Your task to perform on an android device: Search for vegetarian restaurants on Maps Image 0: 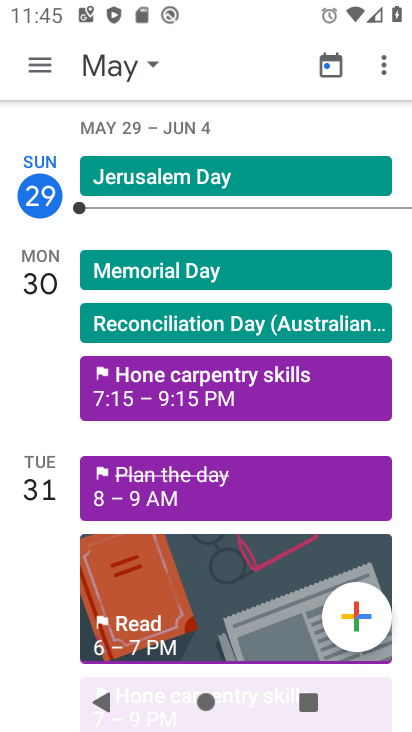
Step 0: press home button
Your task to perform on an android device: Search for vegetarian restaurants on Maps Image 1: 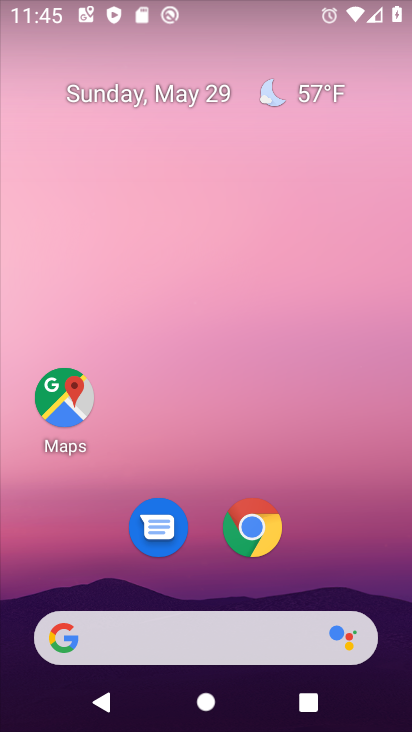
Step 1: click (64, 393)
Your task to perform on an android device: Search for vegetarian restaurants on Maps Image 2: 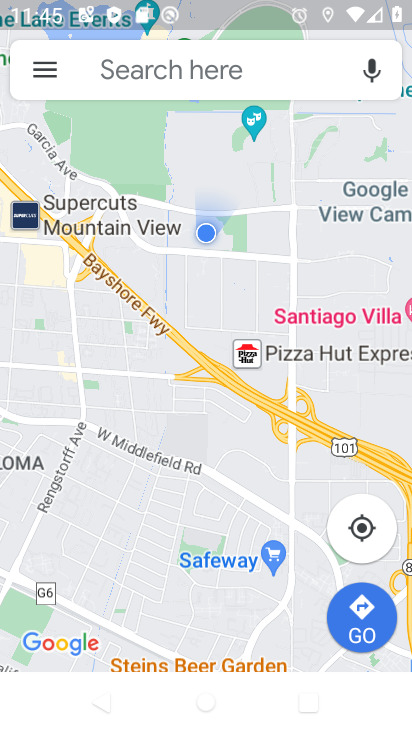
Step 2: click (151, 65)
Your task to perform on an android device: Search for vegetarian restaurants on Maps Image 3: 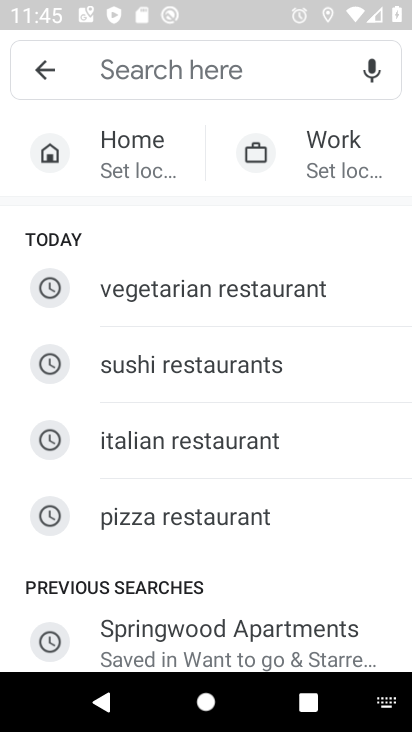
Step 3: click (299, 313)
Your task to perform on an android device: Search for vegetarian restaurants on Maps Image 4: 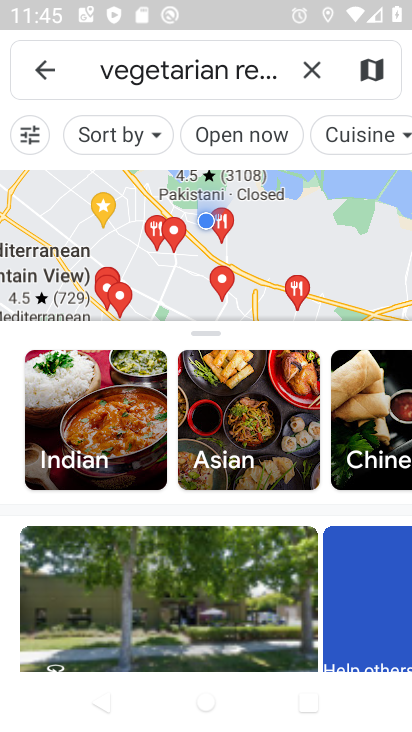
Step 4: task complete